Your task to perform on an android device: Search for sushi restaurants on Maps Image 0: 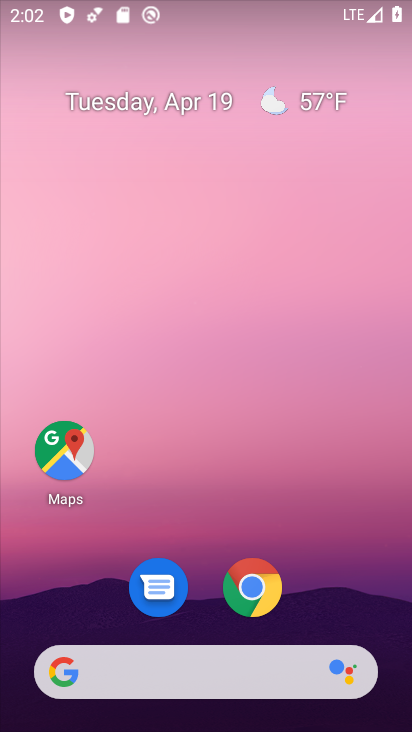
Step 0: drag from (322, 585) to (179, 127)
Your task to perform on an android device: Search for sushi restaurants on Maps Image 1: 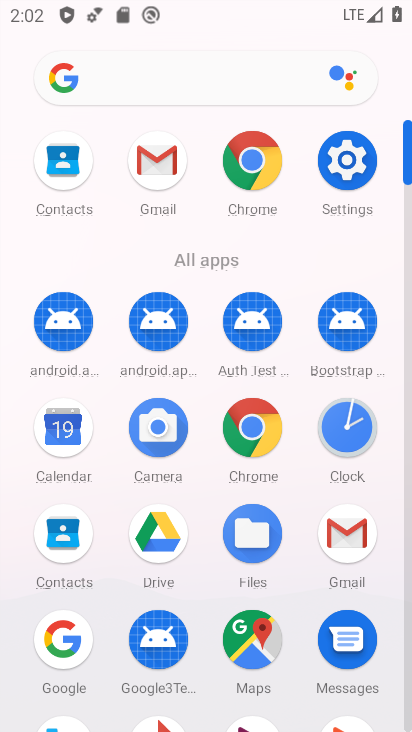
Step 1: click (239, 628)
Your task to perform on an android device: Search for sushi restaurants on Maps Image 2: 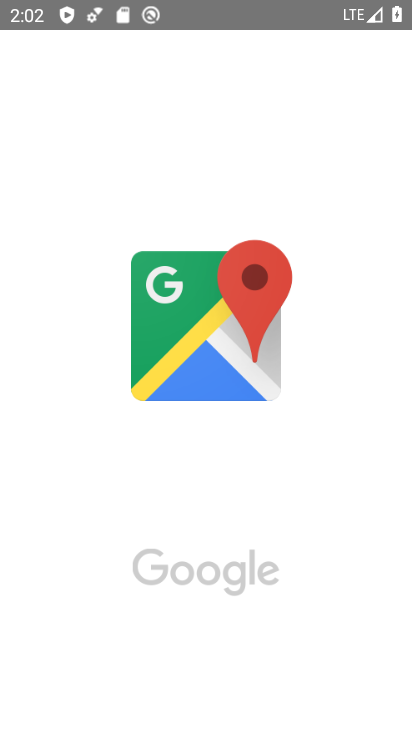
Step 2: click (239, 629)
Your task to perform on an android device: Search for sushi restaurants on Maps Image 3: 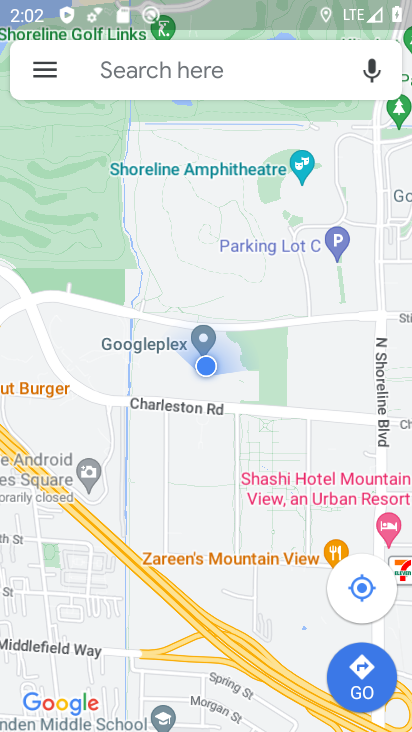
Step 3: type "shushi restaurants"
Your task to perform on an android device: Search for sushi restaurants on Maps Image 4: 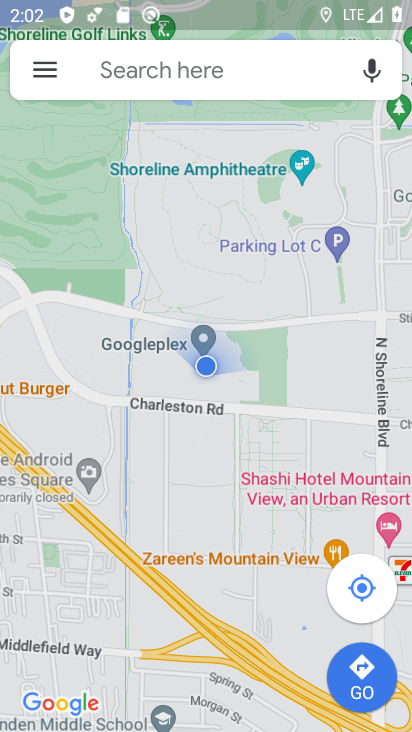
Step 4: click (101, 64)
Your task to perform on an android device: Search for sushi restaurants on Maps Image 5: 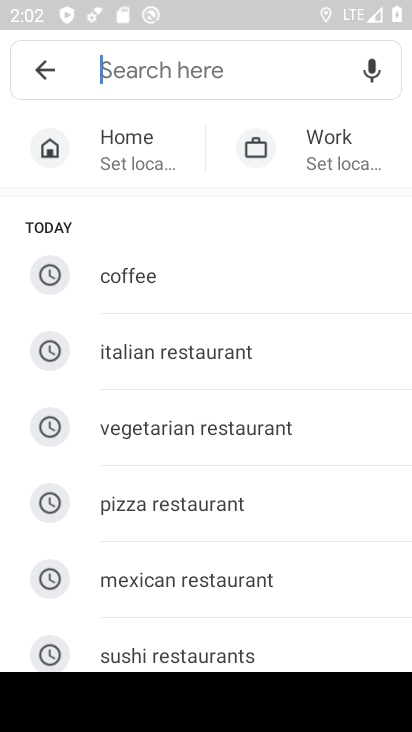
Step 5: click (155, 654)
Your task to perform on an android device: Search for sushi restaurants on Maps Image 6: 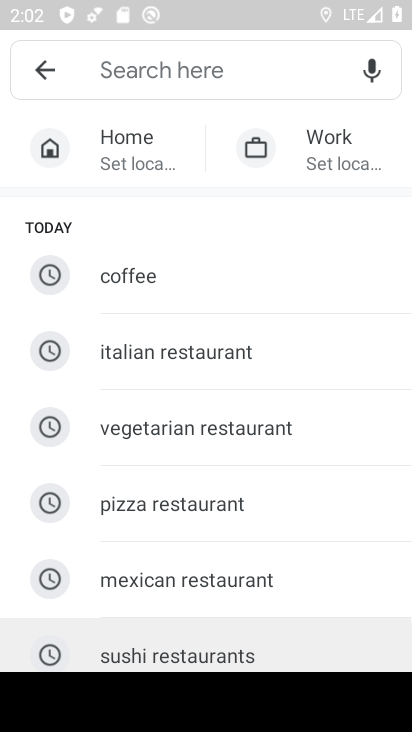
Step 6: click (155, 654)
Your task to perform on an android device: Search for sushi restaurants on Maps Image 7: 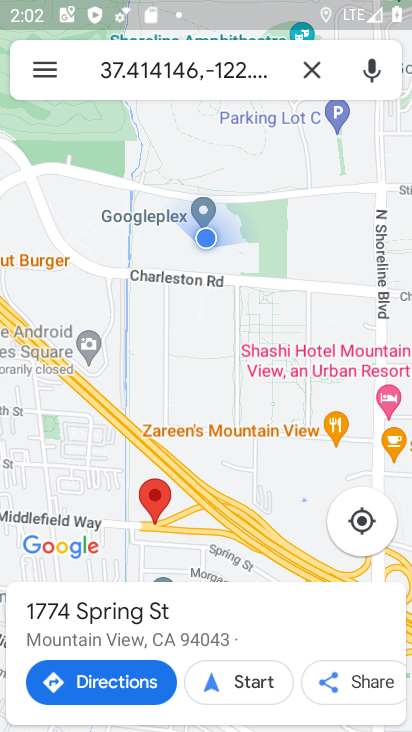
Step 7: task complete